Your task to perform on an android device: Open battery settings Image 0: 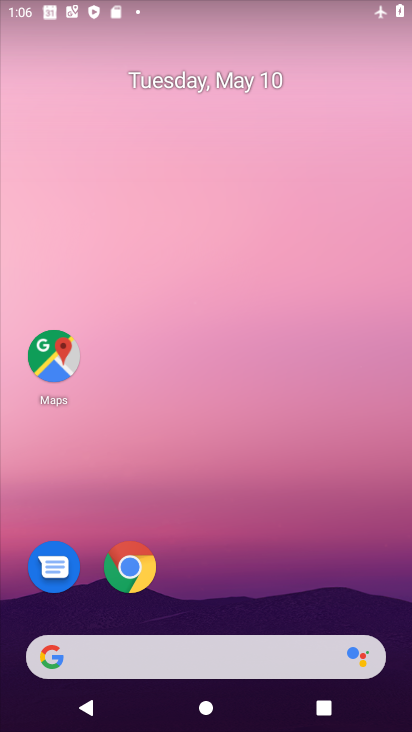
Step 0: drag from (389, 625) to (287, 53)
Your task to perform on an android device: Open battery settings Image 1: 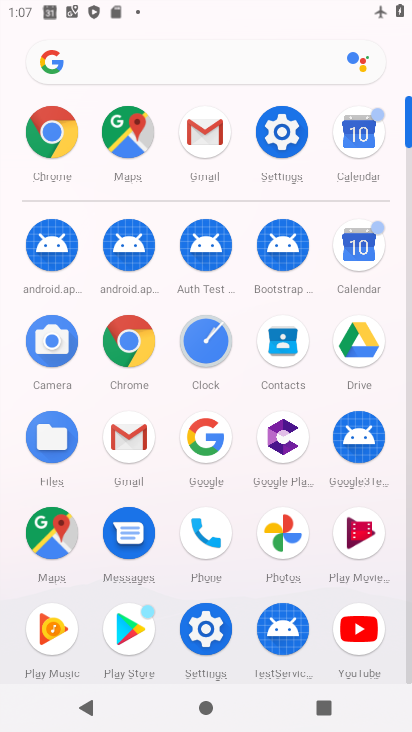
Step 1: click (188, 622)
Your task to perform on an android device: Open battery settings Image 2: 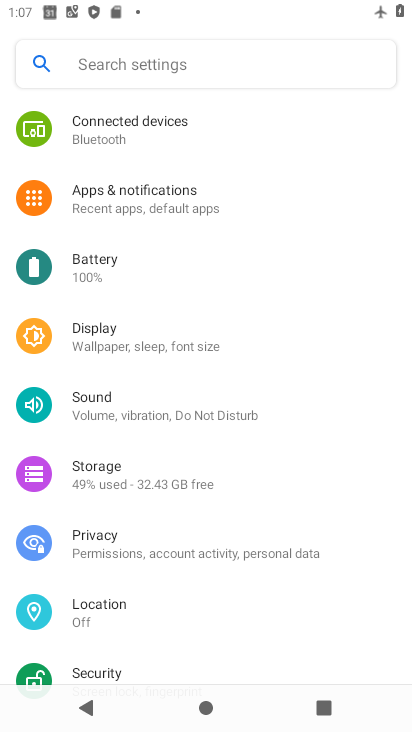
Step 2: click (141, 256)
Your task to perform on an android device: Open battery settings Image 3: 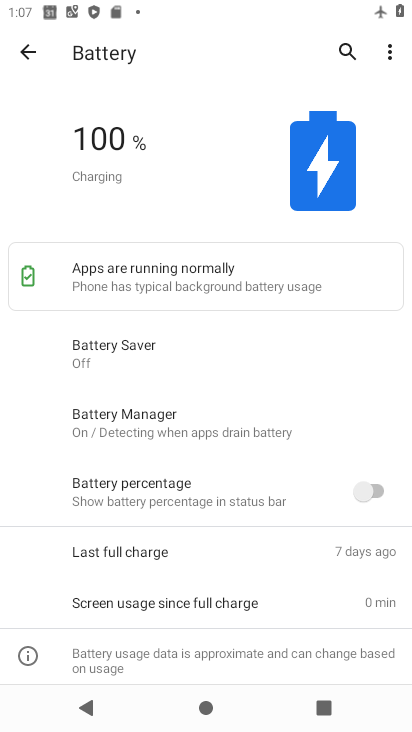
Step 3: task complete